Your task to perform on an android device: manage bookmarks in the chrome app Image 0: 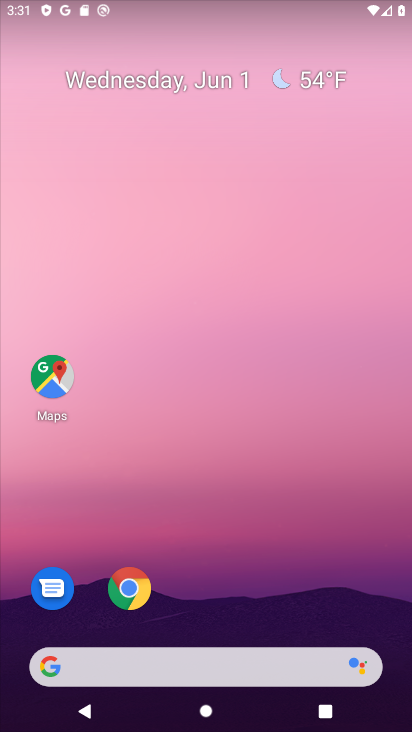
Step 0: click (153, 610)
Your task to perform on an android device: manage bookmarks in the chrome app Image 1: 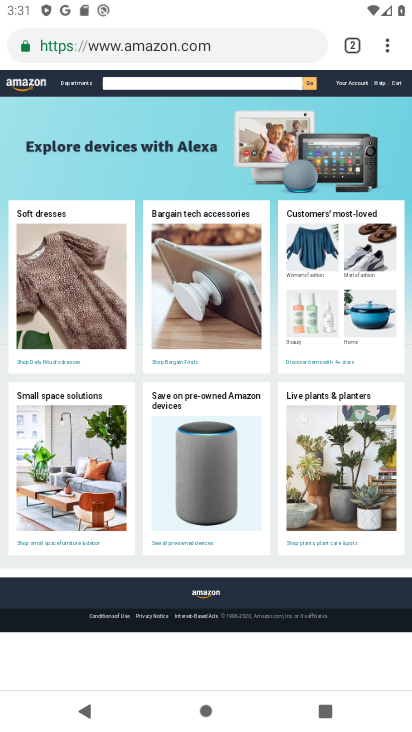
Step 1: click (387, 45)
Your task to perform on an android device: manage bookmarks in the chrome app Image 2: 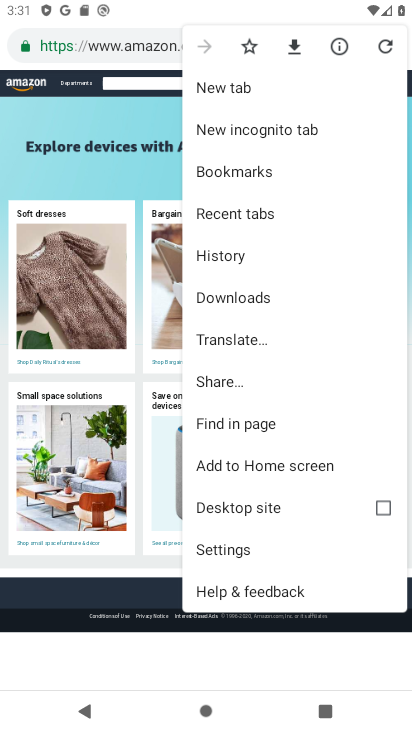
Step 2: click (253, 171)
Your task to perform on an android device: manage bookmarks in the chrome app Image 3: 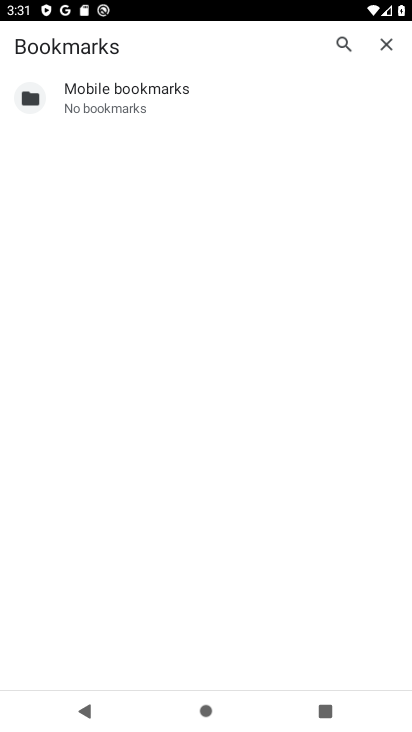
Step 3: click (187, 90)
Your task to perform on an android device: manage bookmarks in the chrome app Image 4: 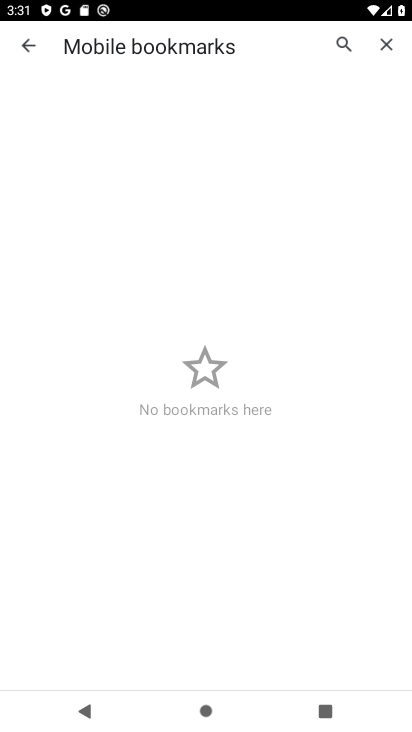
Step 4: task complete